Your task to perform on an android device: open app "Yahoo Mail" (install if not already installed) and go to login screen Image 0: 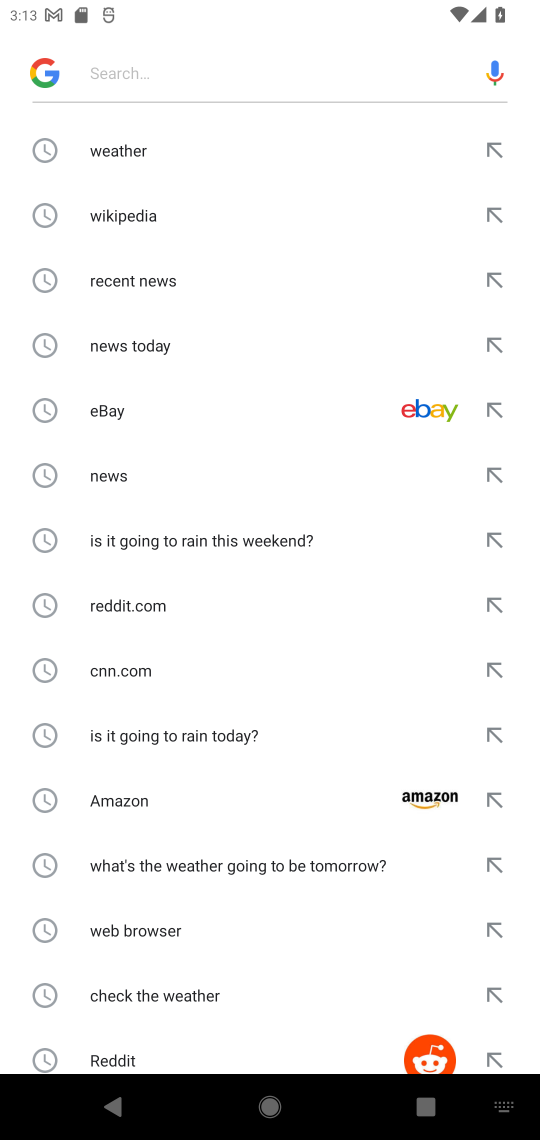
Step 0: press home button
Your task to perform on an android device: open app "Yahoo Mail" (install if not already installed) and go to login screen Image 1: 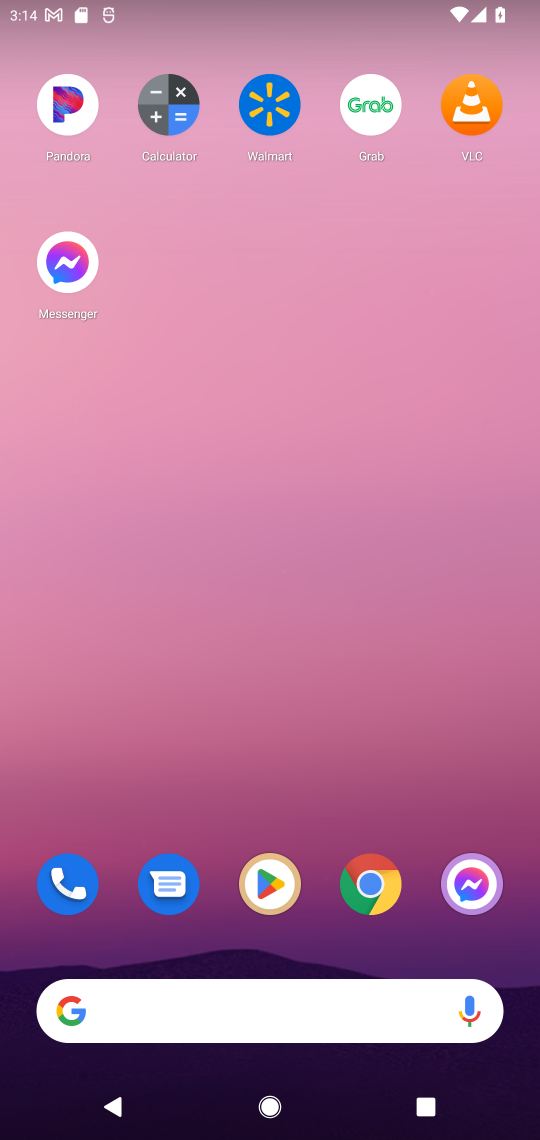
Step 1: click (270, 879)
Your task to perform on an android device: open app "Yahoo Mail" (install if not already installed) and go to login screen Image 2: 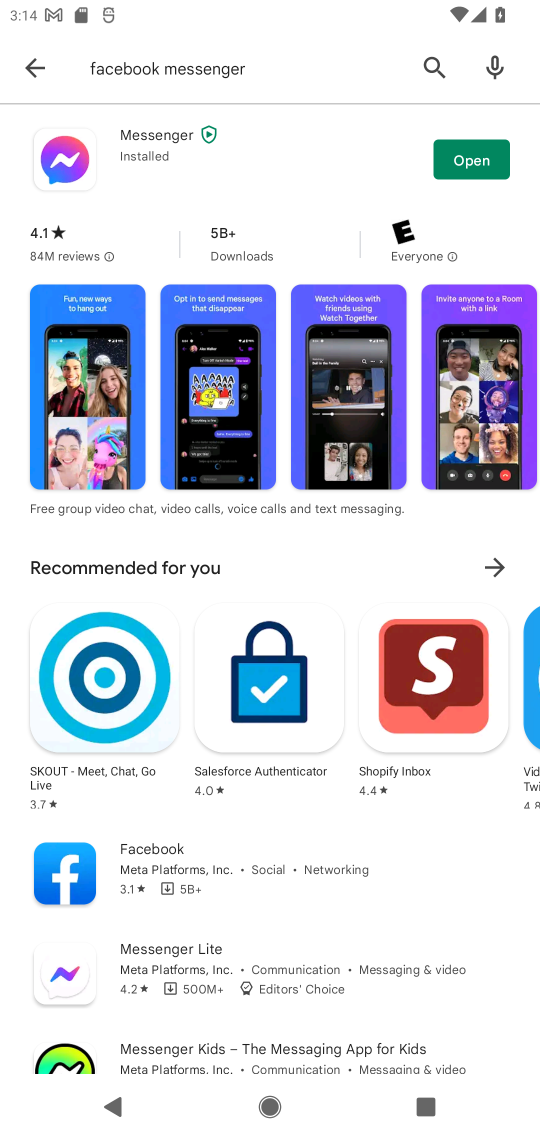
Step 2: click (196, 65)
Your task to perform on an android device: open app "Yahoo Mail" (install if not already installed) and go to login screen Image 3: 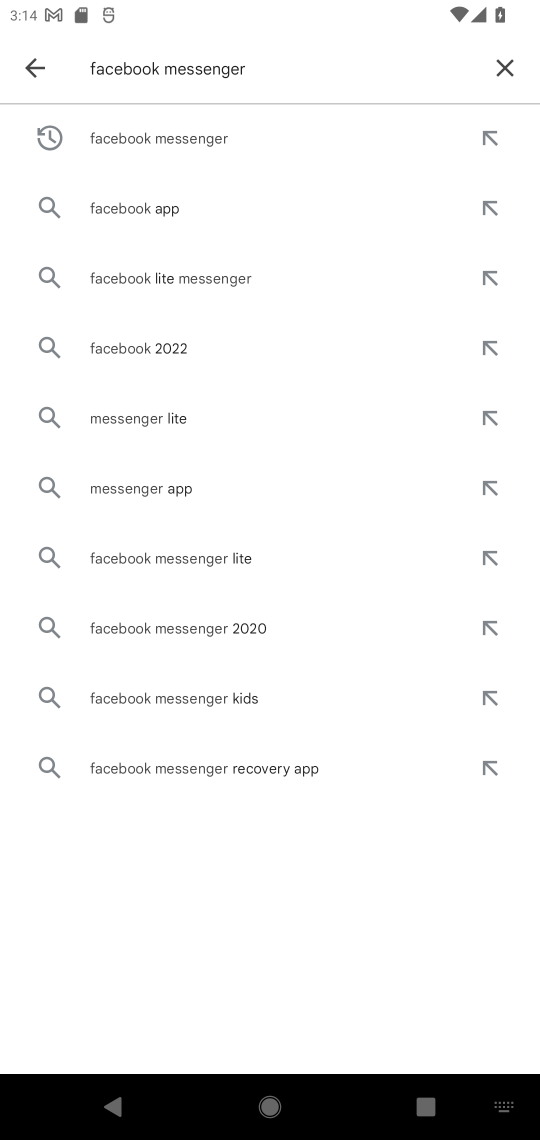
Step 3: click (504, 60)
Your task to perform on an android device: open app "Yahoo Mail" (install if not already installed) and go to login screen Image 4: 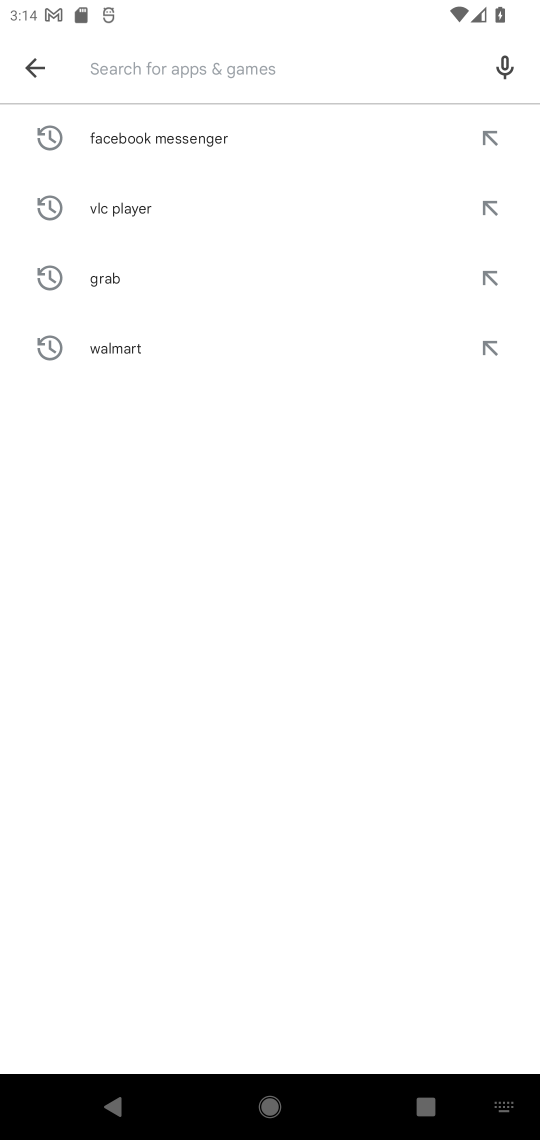
Step 4: type "yahoo mail"
Your task to perform on an android device: open app "Yahoo Mail" (install if not already installed) and go to login screen Image 5: 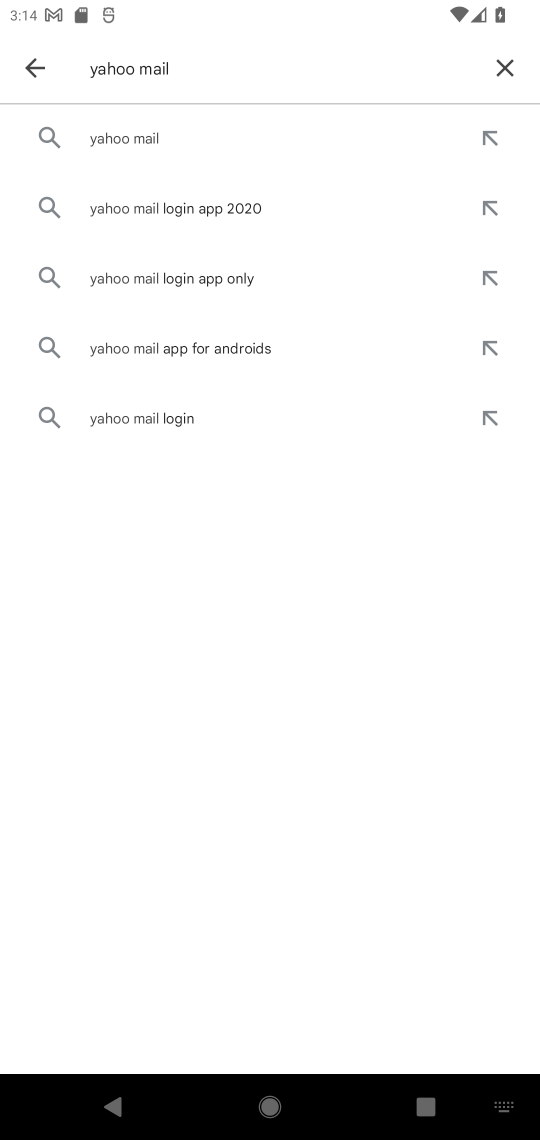
Step 5: click (165, 141)
Your task to perform on an android device: open app "Yahoo Mail" (install if not already installed) and go to login screen Image 6: 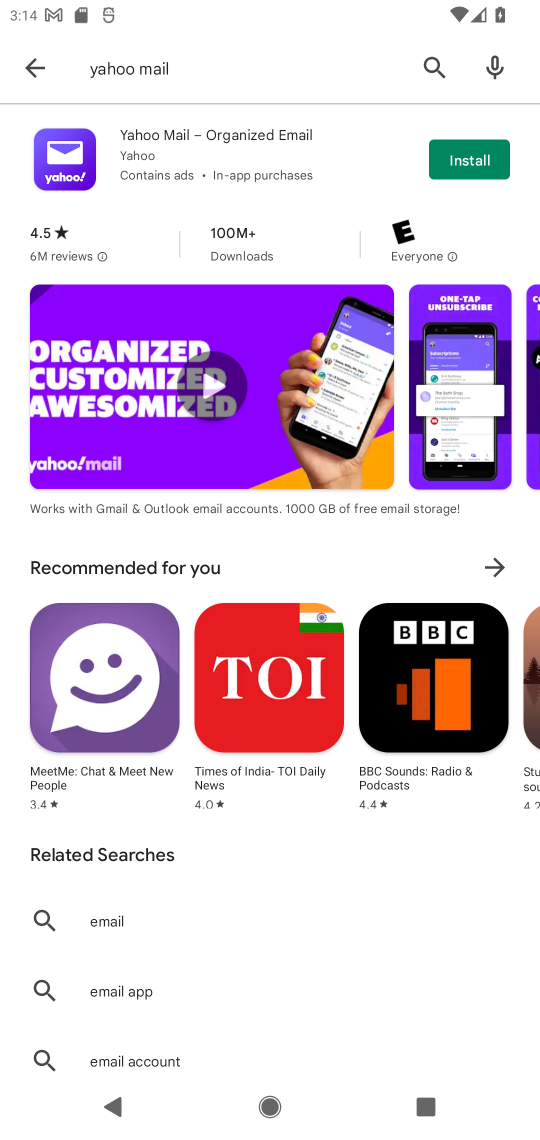
Step 6: click (476, 151)
Your task to perform on an android device: open app "Yahoo Mail" (install if not already installed) and go to login screen Image 7: 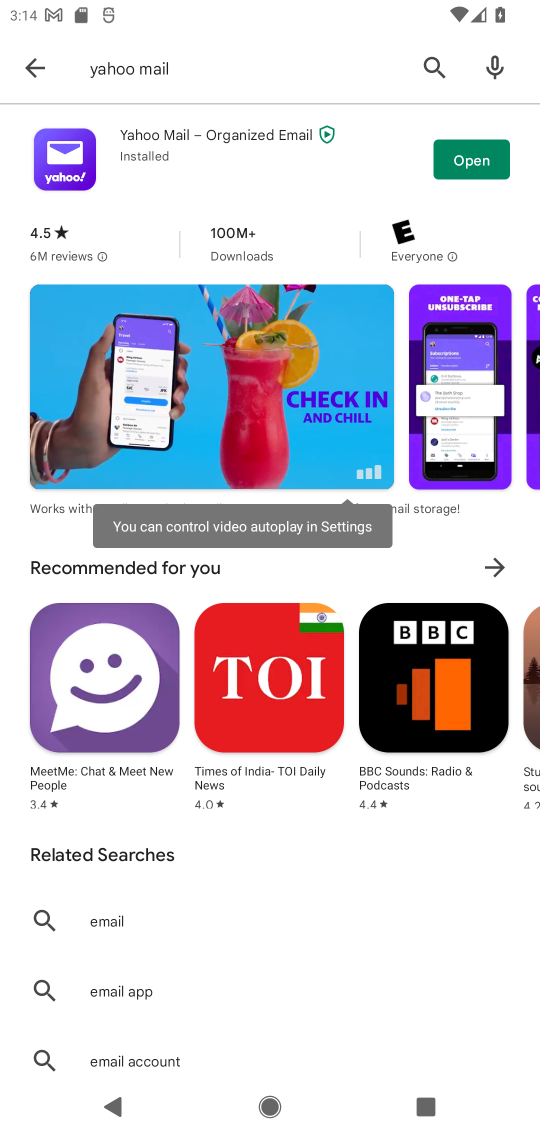
Step 7: click (472, 153)
Your task to perform on an android device: open app "Yahoo Mail" (install if not already installed) and go to login screen Image 8: 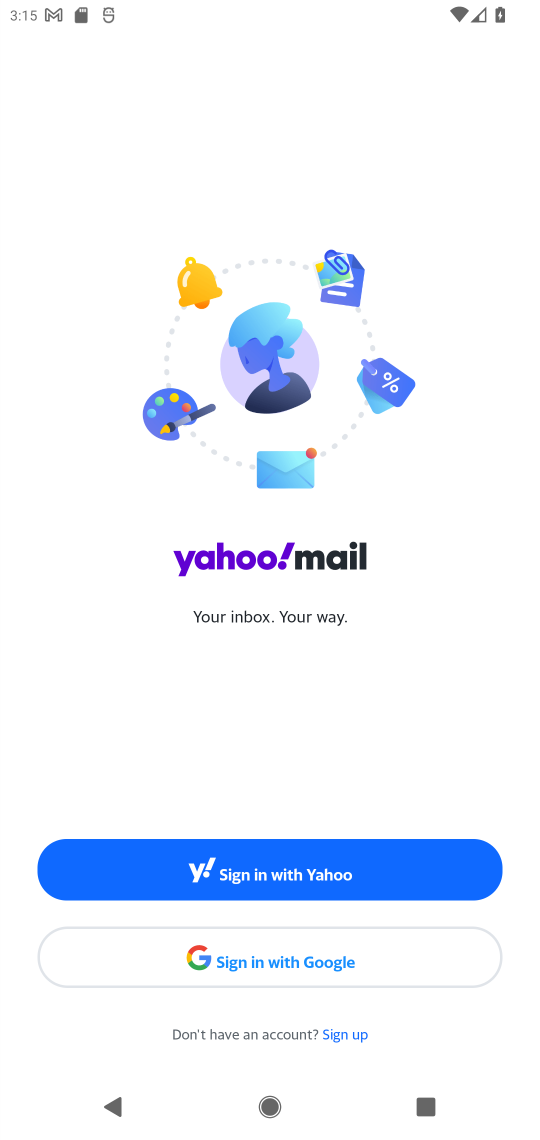
Step 8: click (354, 1037)
Your task to perform on an android device: open app "Yahoo Mail" (install if not already installed) and go to login screen Image 9: 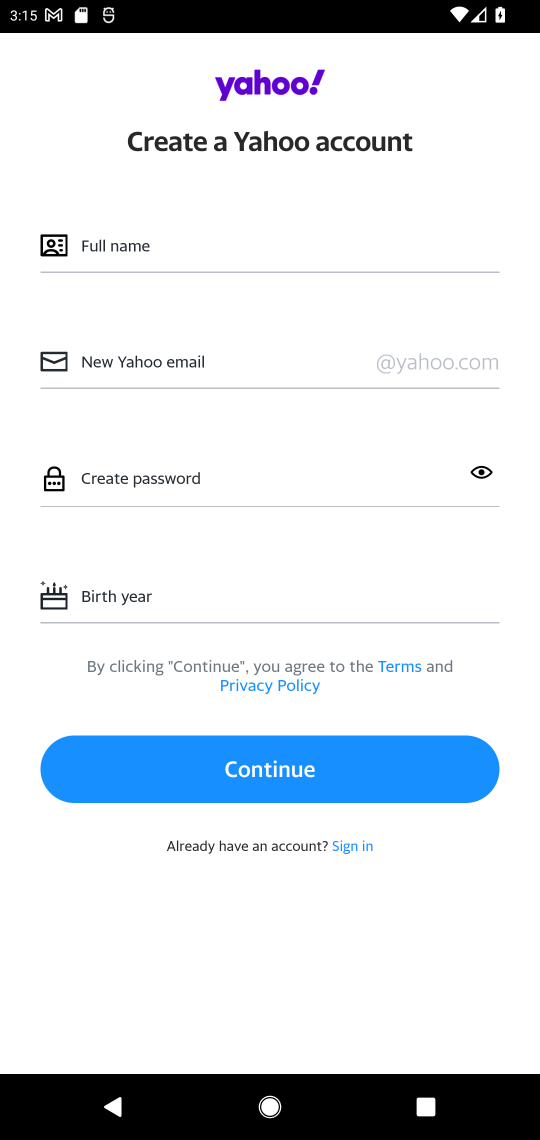
Step 9: click (351, 842)
Your task to perform on an android device: open app "Yahoo Mail" (install if not already installed) and go to login screen Image 10: 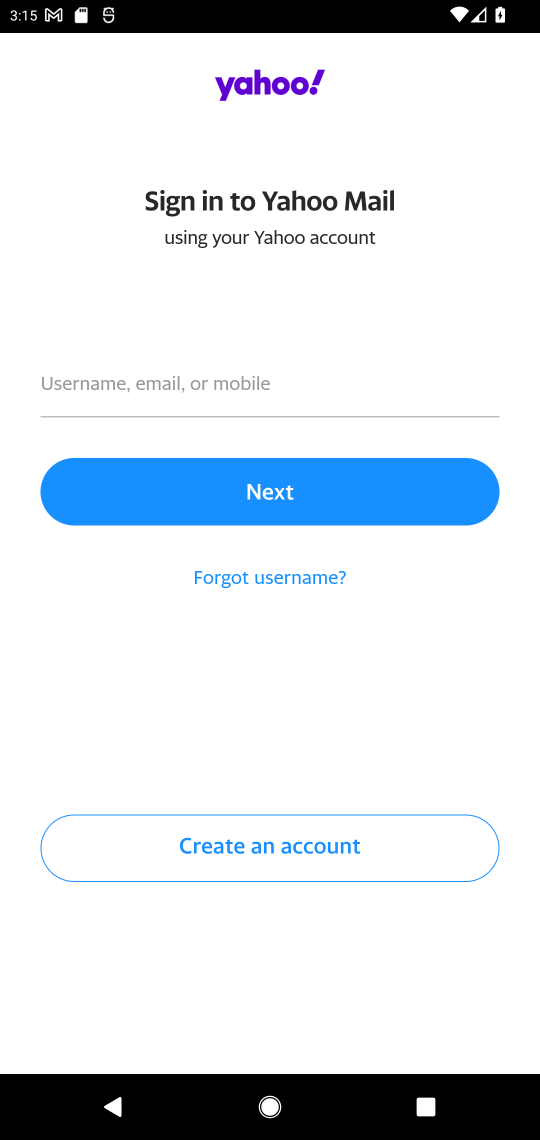
Step 10: task complete